Your task to perform on an android device: change timer sound Image 0: 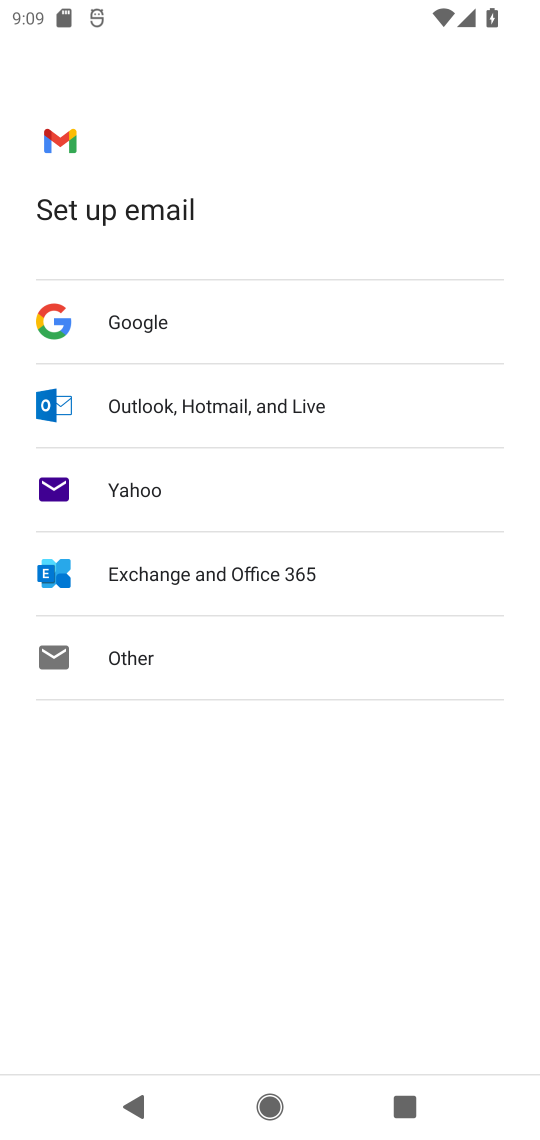
Step 0: press home button
Your task to perform on an android device: change timer sound Image 1: 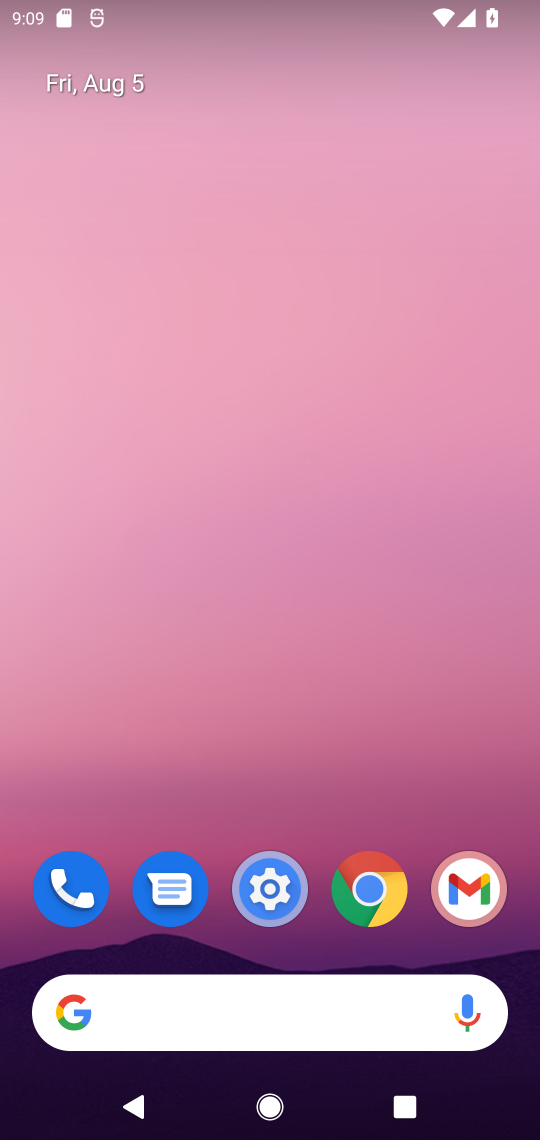
Step 1: drag from (302, 1007) to (363, 59)
Your task to perform on an android device: change timer sound Image 2: 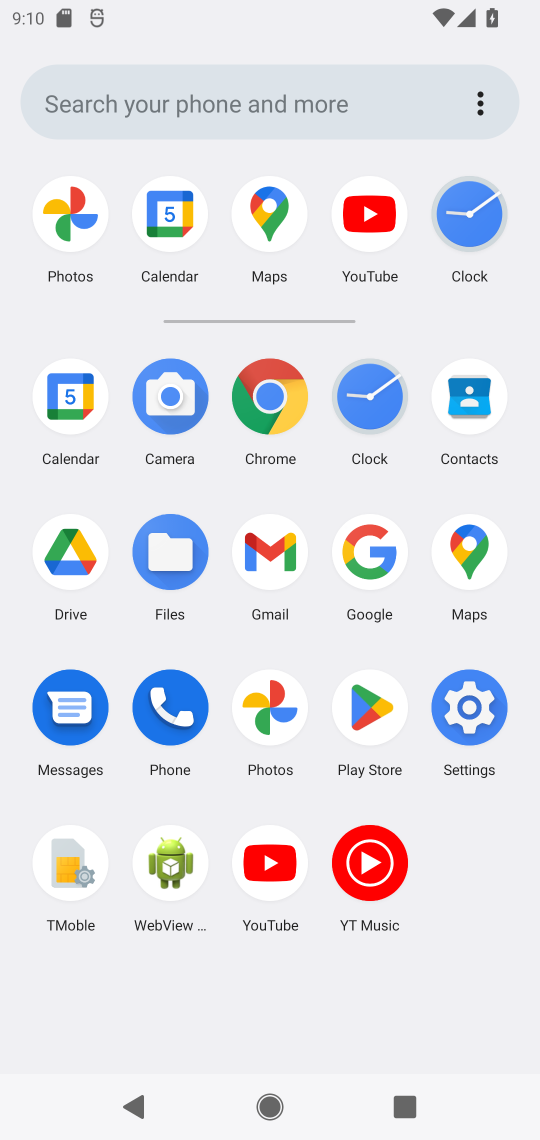
Step 2: click (476, 710)
Your task to perform on an android device: change timer sound Image 3: 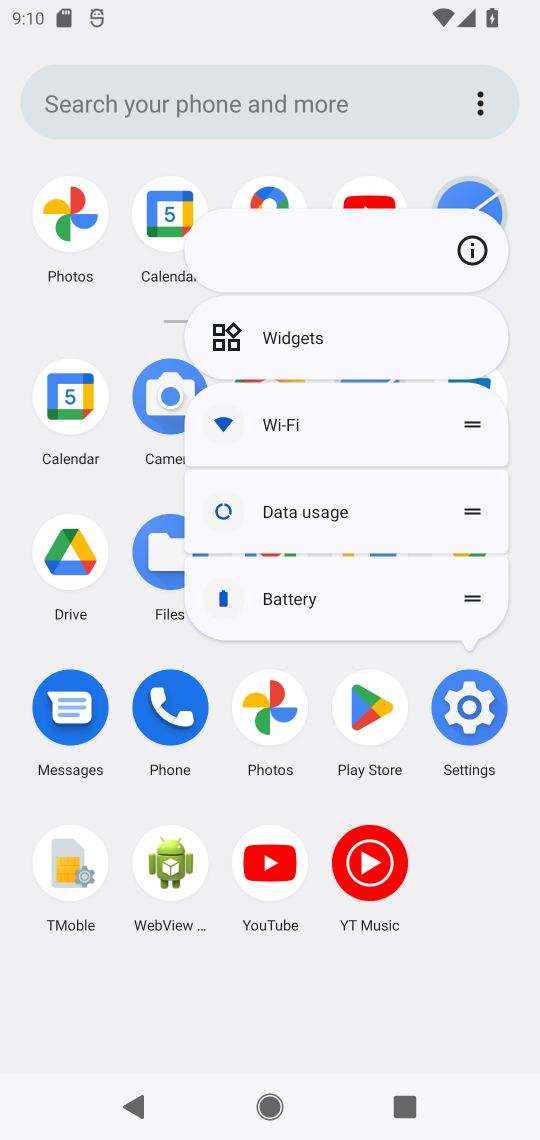
Step 3: click (450, 736)
Your task to perform on an android device: change timer sound Image 4: 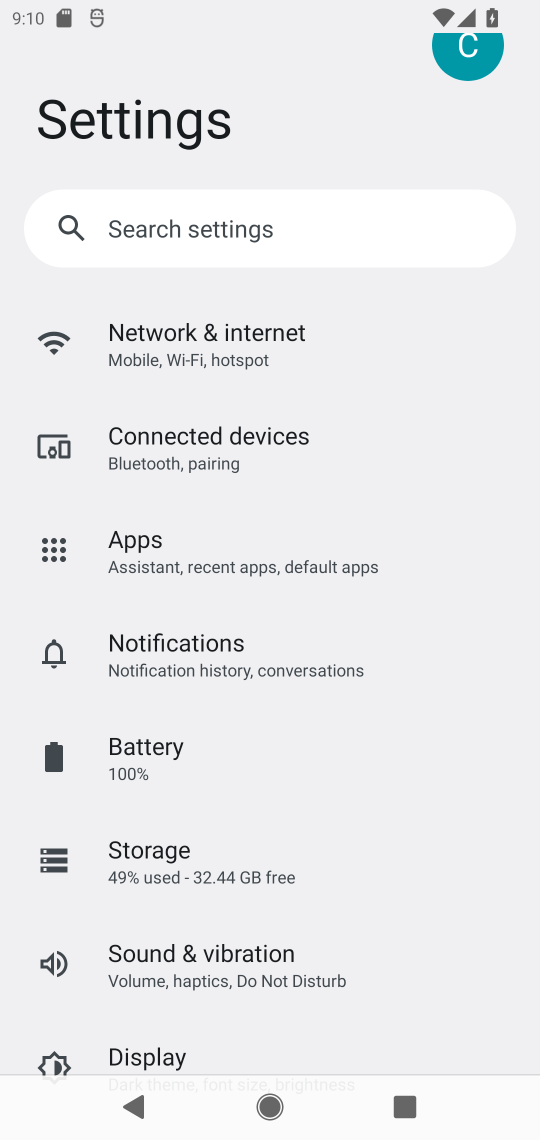
Step 4: drag from (251, 986) to (310, 378)
Your task to perform on an android device: change timer sound Image 5: 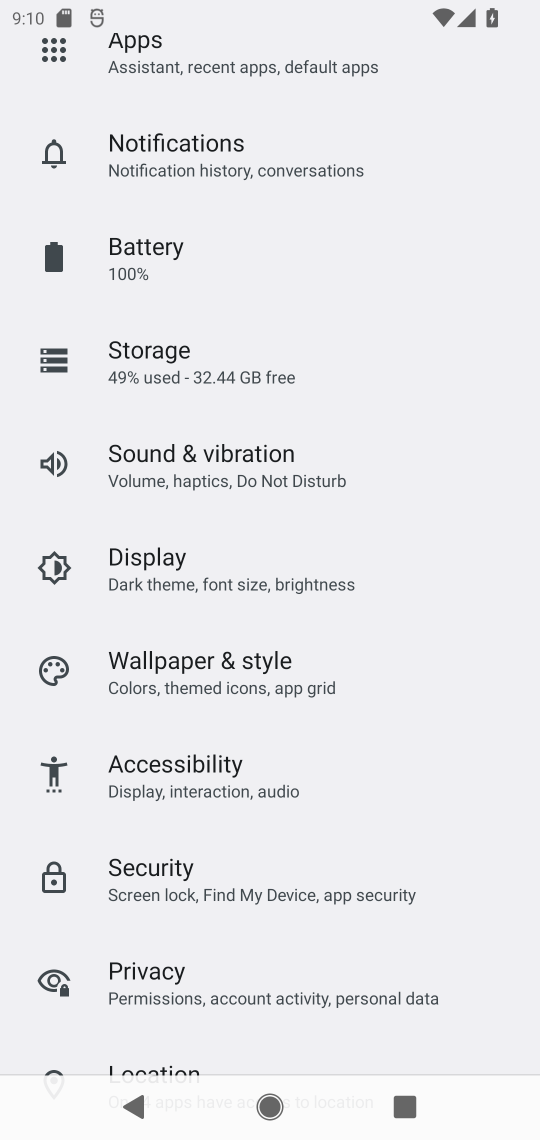
Step 5: click (269, 457)
Your task to perform on an android device: change timer sound Image 6: 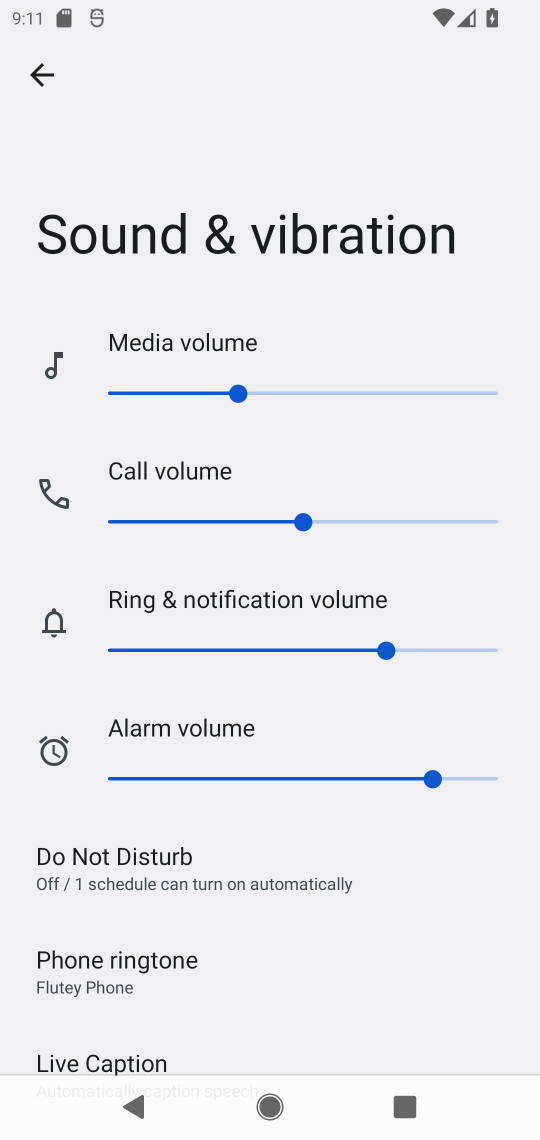
Step 6: task complete